Your task to perform on an android device: Open the map Image 0: 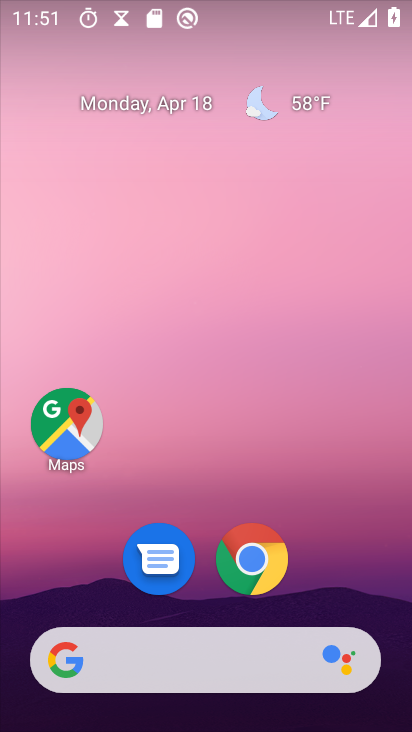
Step 0: click (54, 425)
Your task to perform on an android device: Open the map Image 1: 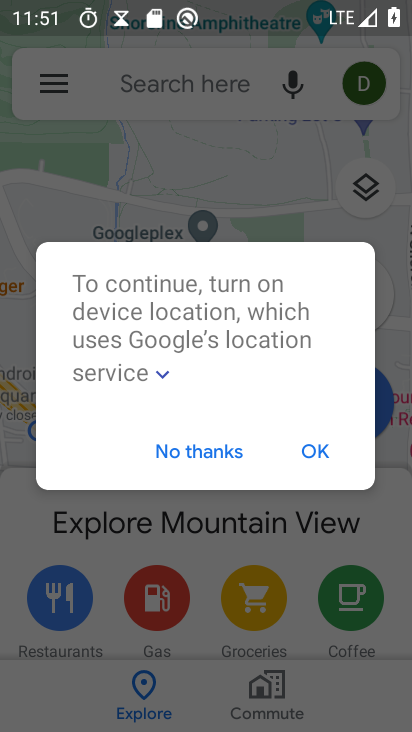
Step 1: click (195, 459)
Your task to perform on an android device: Open the map Image 2: 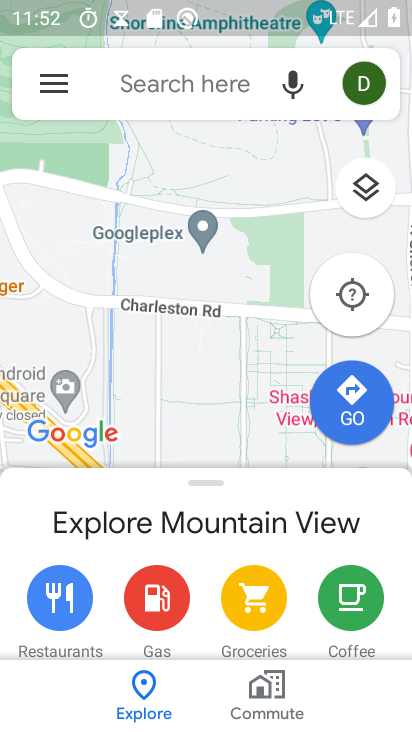
Step 2: task complete